Your task to perform on an android device: Open calendar and show me the first week of next month Image 0: 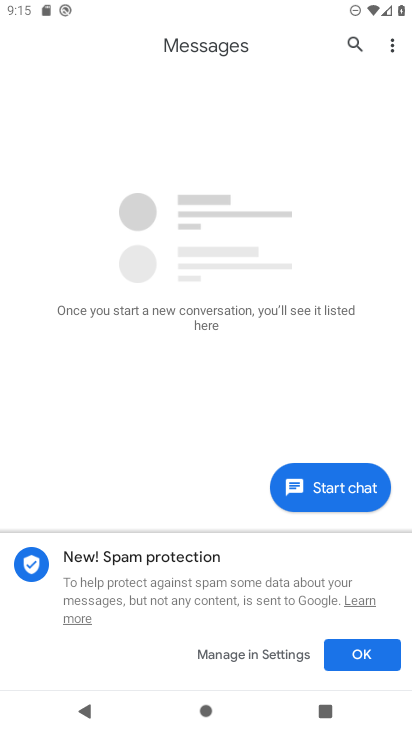
Step 0: press home button
Your task to perform on an android device: Open calendar and show me the first week of next month Image 1: 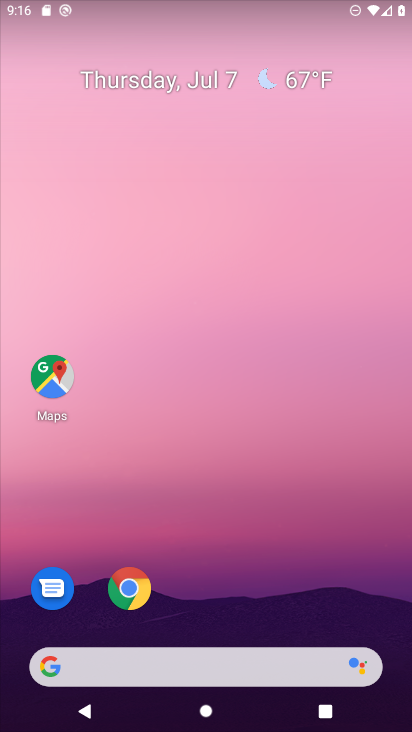
Step 1: drag from (233, 613) to (187, 62)
Your task to perform on an android device: Open calendar and show me the first week of next month Image 2: 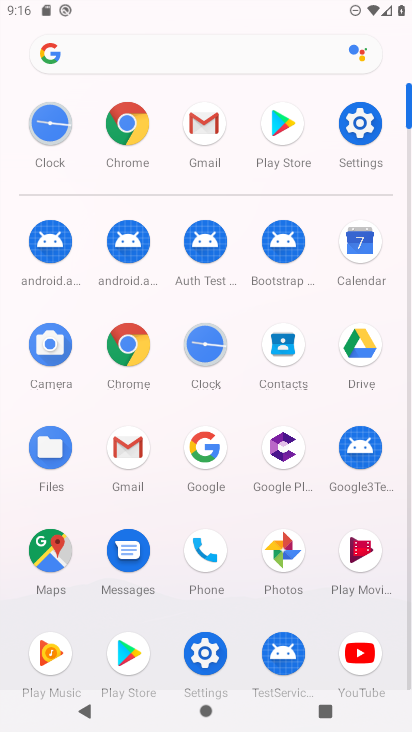
Step 2: click (361, 242)
Your task to perform on an android device: Open calendar and show me the first week of next month Image 3: 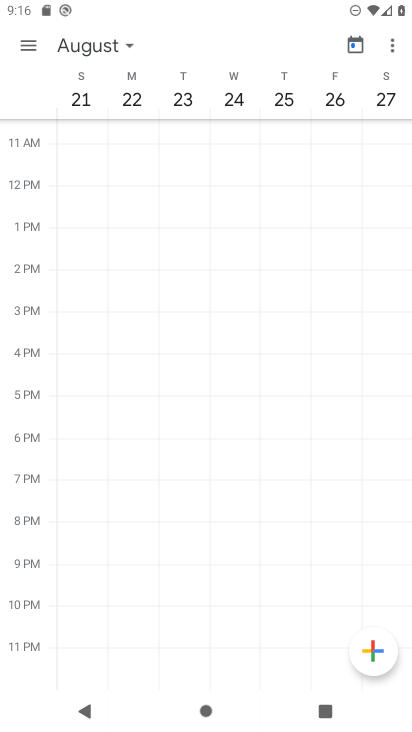
Step 3: click (358, 43)
Your task to perform on an android device: Open calendar and show me the first week of next month Image 4: 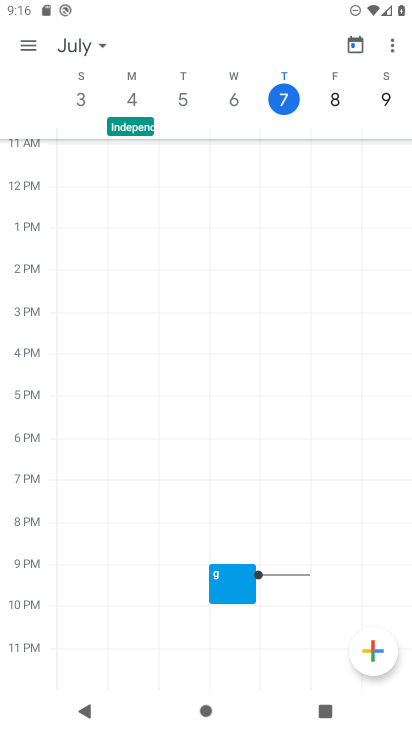
Step 4: click (102, 44)
Your task to perform on an android device: Open calendar and show me the first week of next month Image 5: 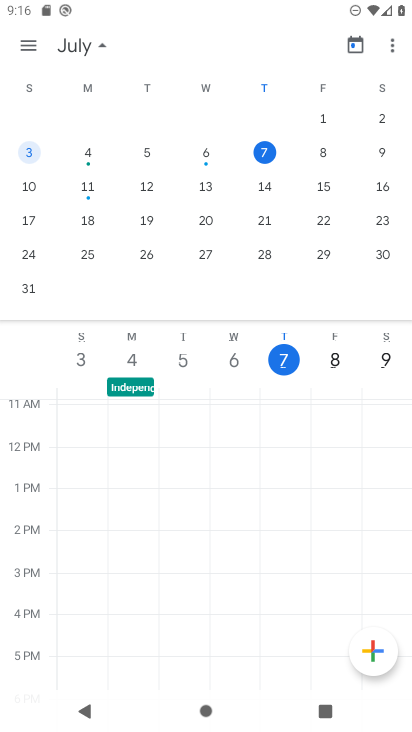
Step 5: drag from (360, 198) to (10, 169)
Your task to perform on an android device: Open calendar and show me the first week of next month Image 6: 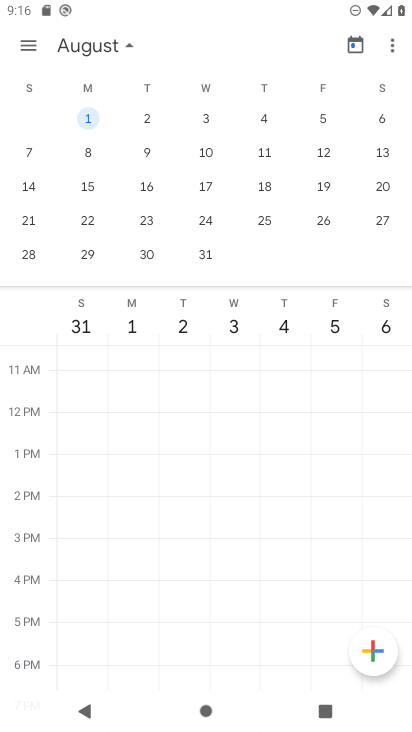
Step 6: click (88, 109)
Your task to perform on an android device: Open calendar and show me the first week of next month Image 7: 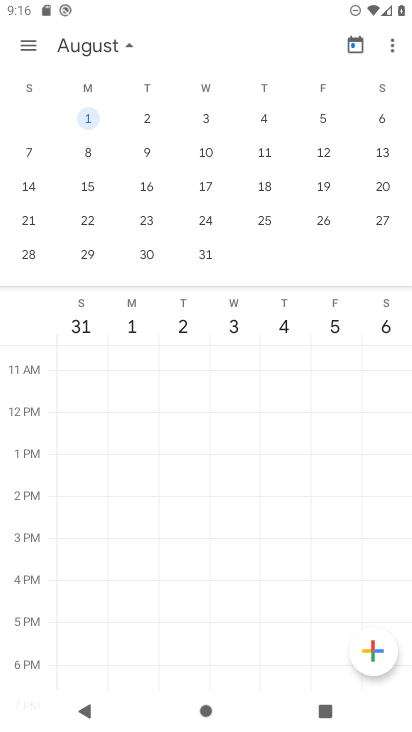
Step 7: click (29, 44)
Your task to perform on an android device: Open calendar and show me the first week of next month Image 8: 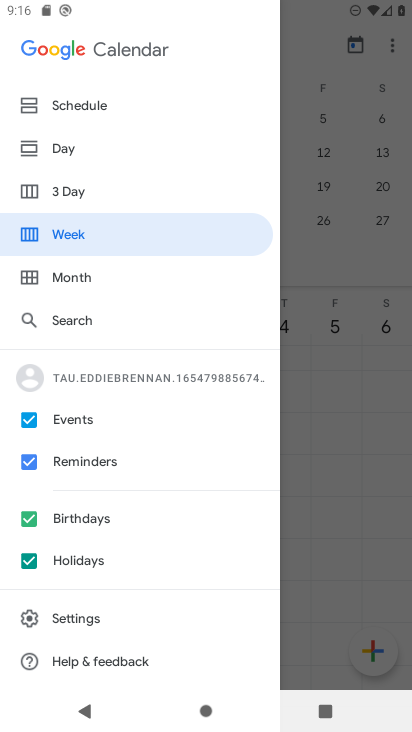
Step 8: click (72, 223)
Your task to perform on an android device: Open calendar and show me the first week of next month Image 9: 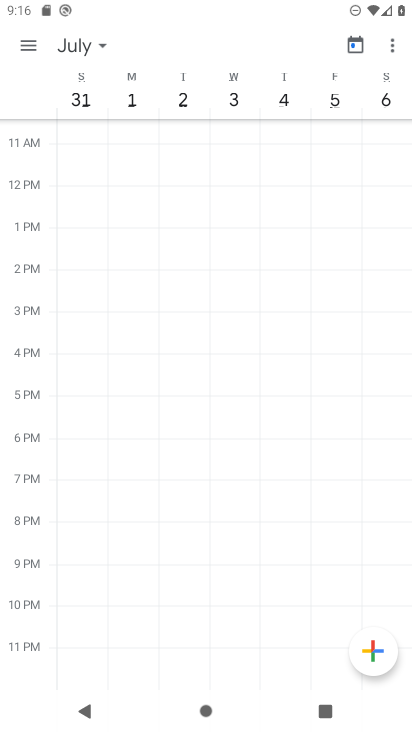
Step 9: task complete